Your task to perform on an android device: toggle translation in the chrome app Image 0: 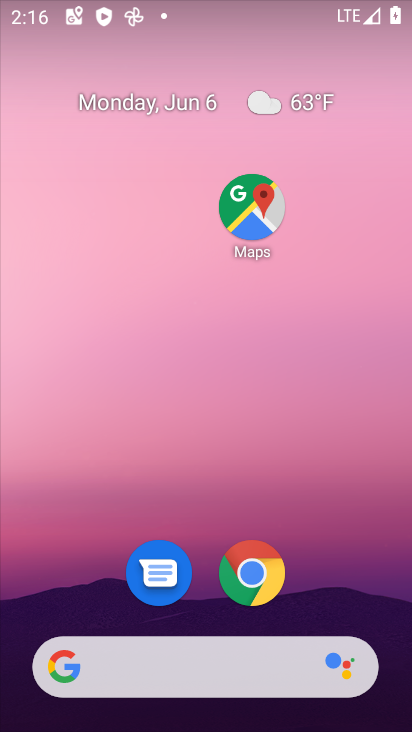
Step 0: press home button
Your task to perform on an android device: toggle translation in the chrome app Image 1: 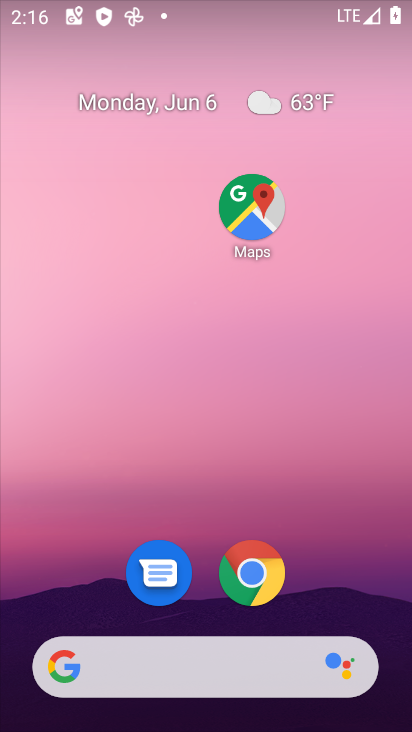
Step 1: click (264, 567)
Your task to perform on an android device: toggle translation in the chrome app Image 2: 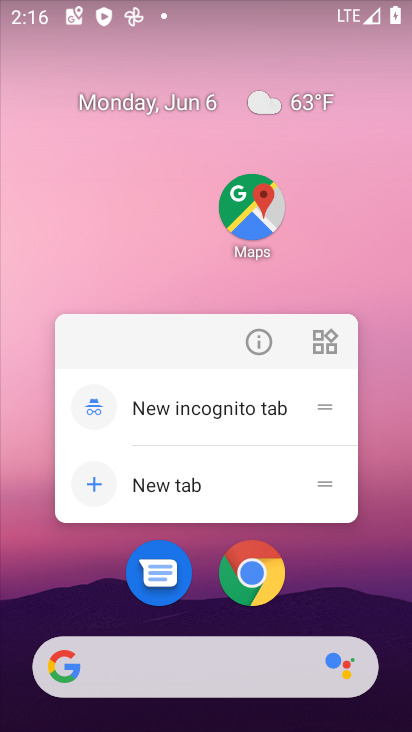
Step 2: click (243, 562)
Your task to perform on an android device: toggle translation in the chrome app Image 3: 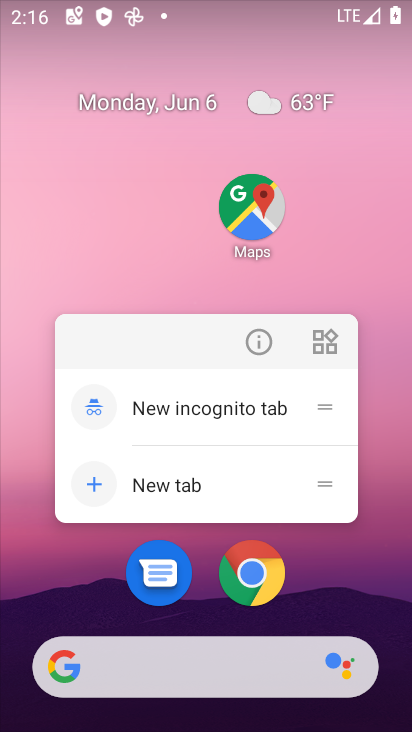
Step 3: click (246, 565)
Your task to perform on an android device: toggle translation in the chrome app Image 4: 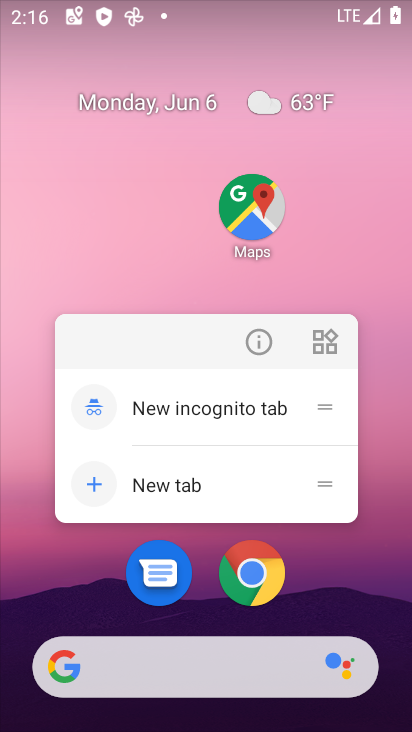
Step 4: click (247, 568)
Your task to perform on an android device: toggle translation in the chrome app Image 5: 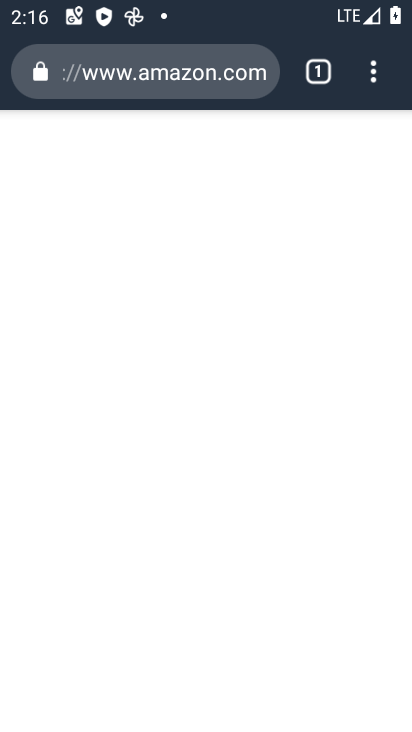
Step 5: click (367, 65)
Your task to perform on an android device: toggle translation in the chrome app Image 6: 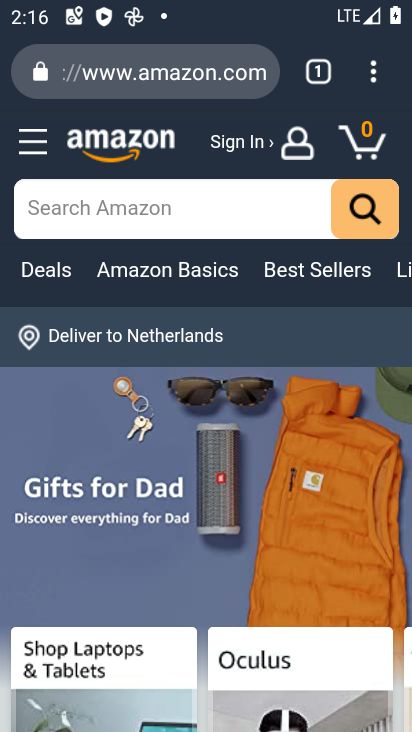
Step 6: click (381, 72)
Your task to perform on an android device: toggle translation in the chrome app Image 7: 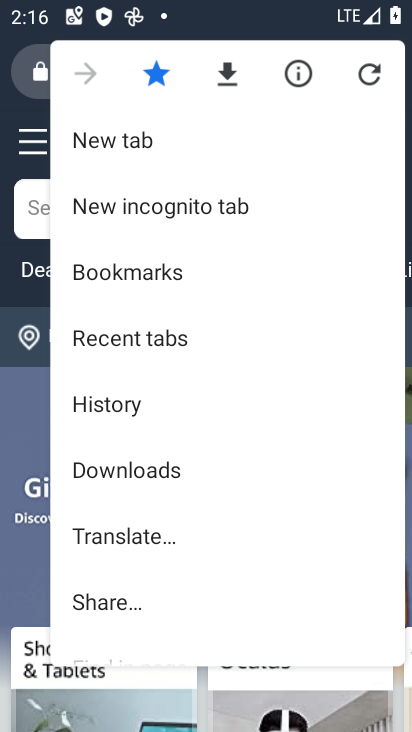
Step 7: drag from (46, 552) to (213, 163)
Your task to perform on an android device: toggle translation in the chrome app Image 8: 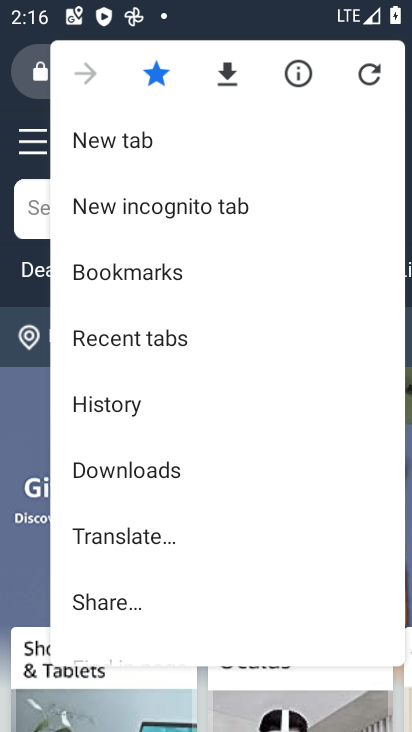
Step 8: drag from (122, 591) to (245, 164)
Your task to perform on an android device: toggle translation in the chrome app Image 9: 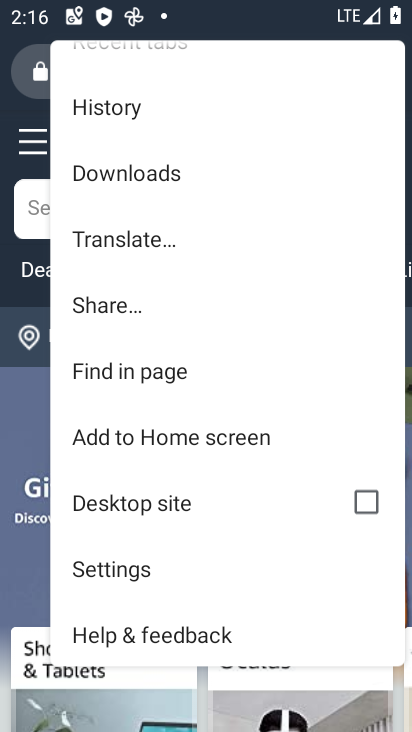
Step 9: click (116, 554)
Your task to perform on an android device: toggle translation in the chrome app Image 10: 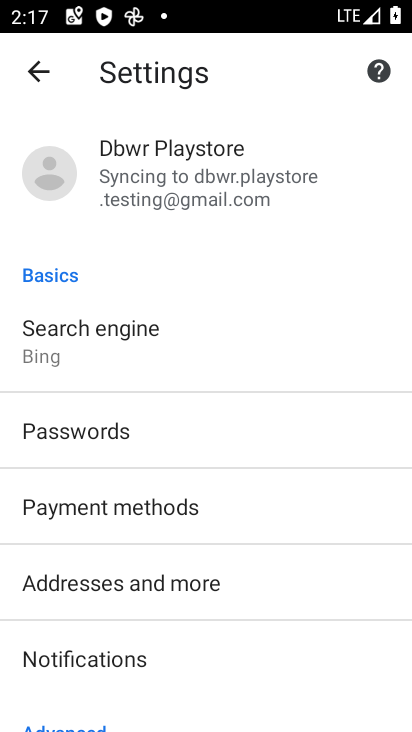
Step 10: drag from (18, 423) to (102, 140)
Your task to perform on an android device: toggle translation in the chrome app Image 11: 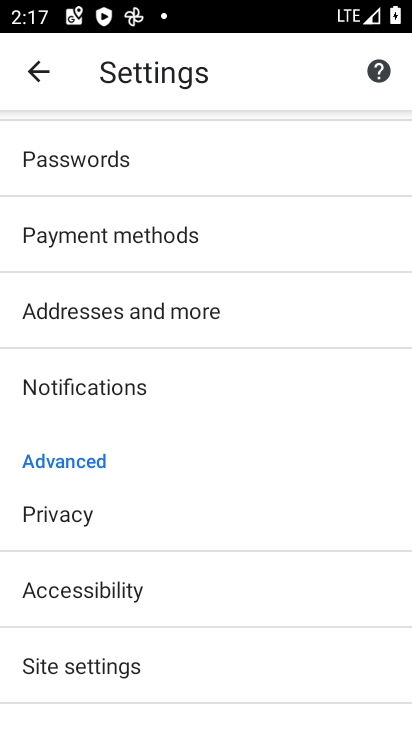
Step 11: drag from (129, 420) to (210, 226)
Your task to perform on an android device: toggle translation in the chrome app Image 12: 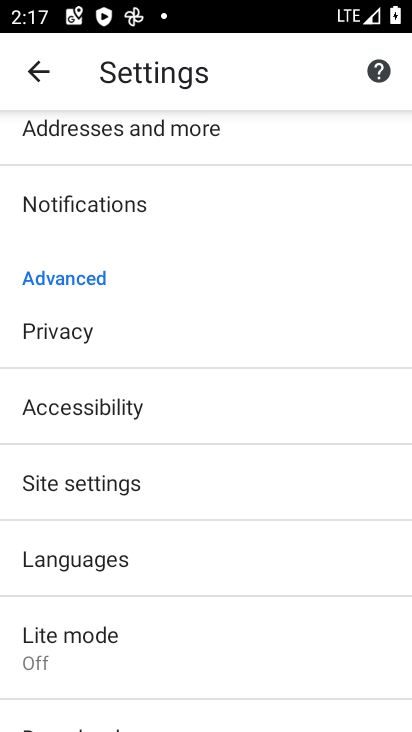
Step 12: click (100, 583)
Your task to perform on an android device: toggle translation in the chrome app Image 13: 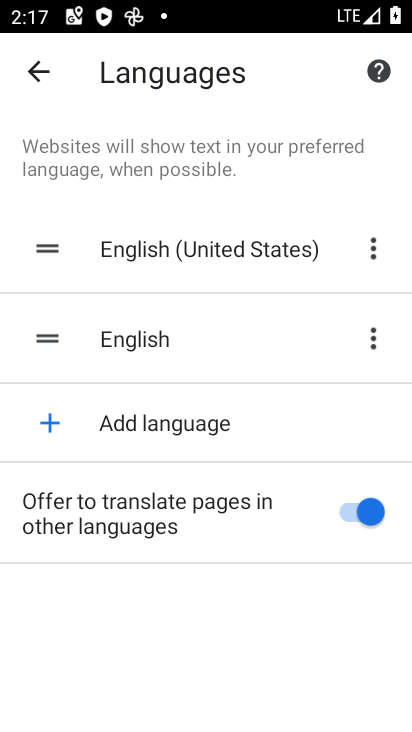
Step 13: click (372, 507)
Your task to perform on an android device: toggle translation in the chrome app Image 14: 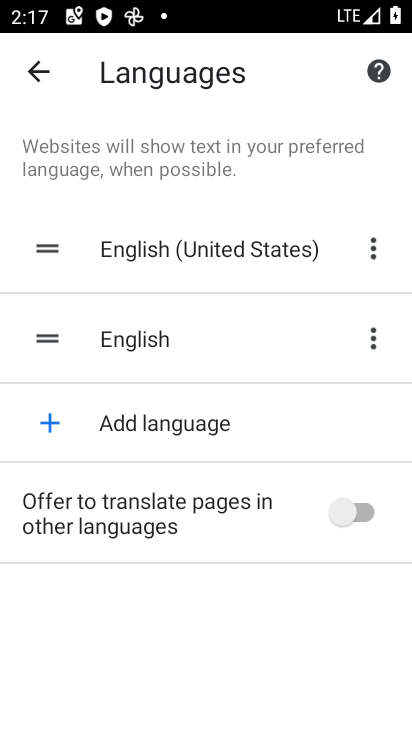
Step 14: task complete